Your task to perform on an android device: open app "Flipkart Online Shopping App" (install if not already installed) and go to login screen Image 0: 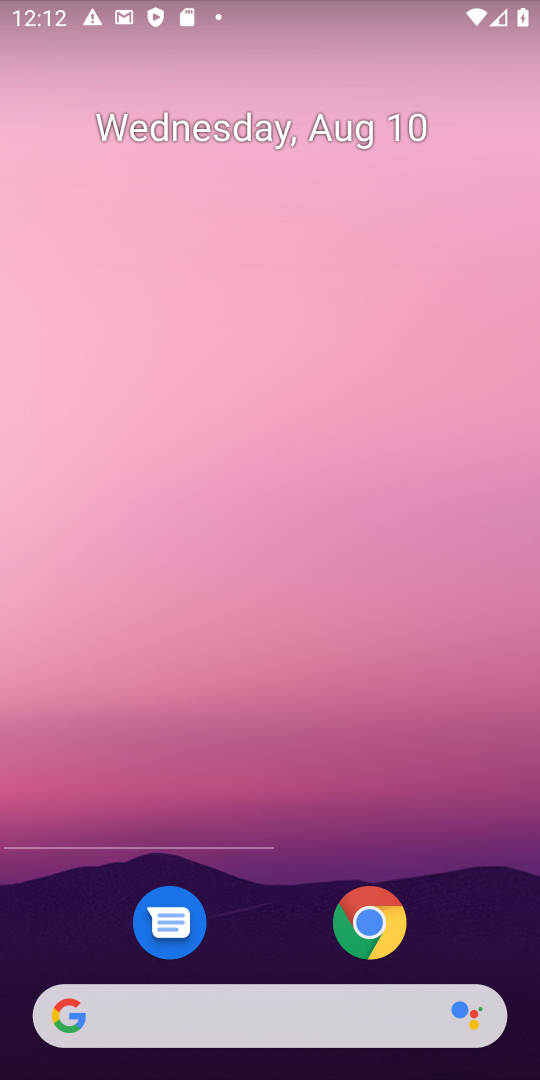
Step 0: click (213, 163)
Your task to perform on an android device: open app "Flipkart Online Shopping App" (install if not already installed) and go to login screen Image 1: 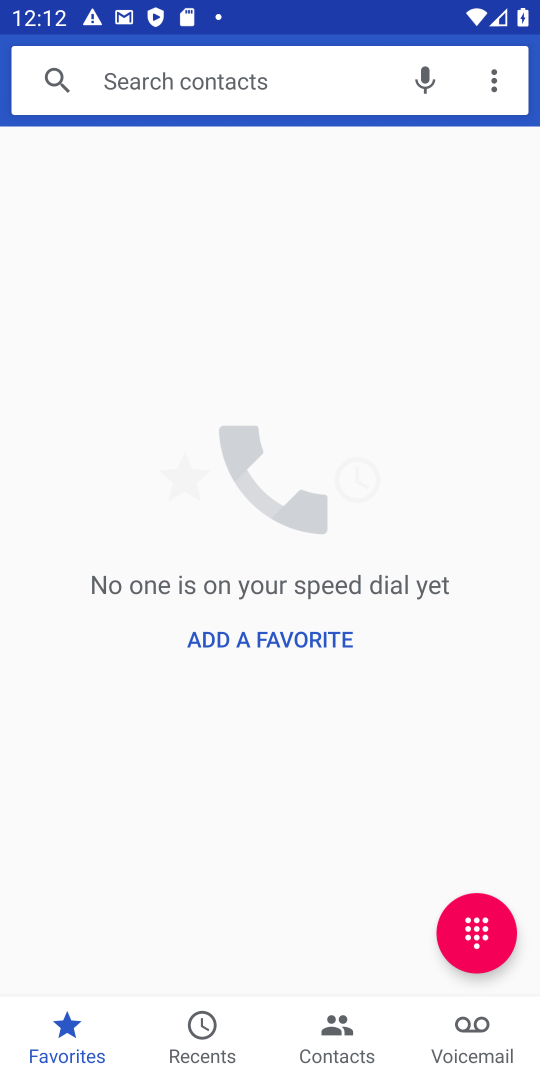
Step 1: press home button
Your task to perform on an android device: open app "Flipkart Online Shopping App" (install if not already installed) and go to login screen Image 2: 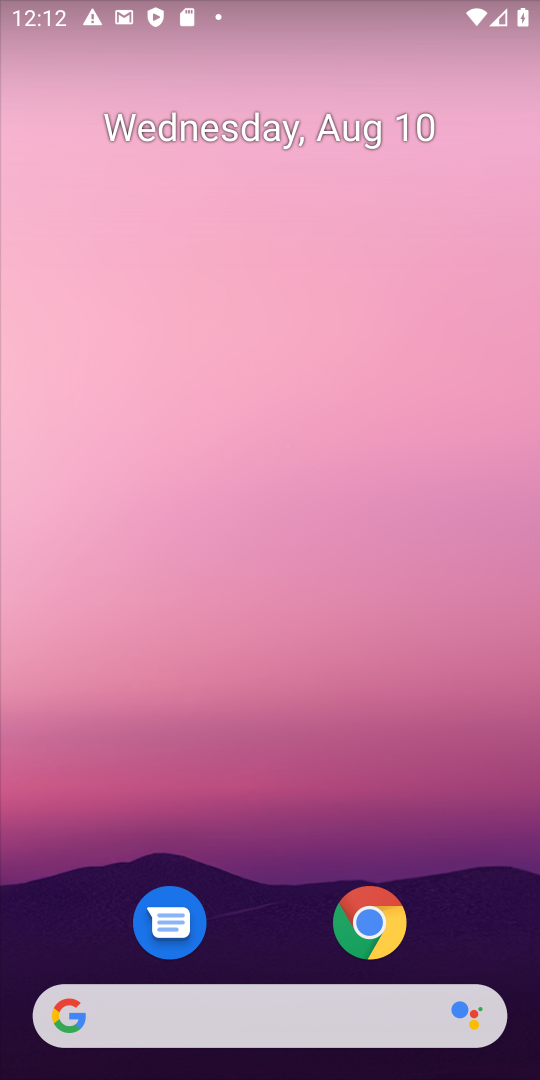
Step 2: drag from (238, 574) to (271, 87)
Your task to perform on an android device: open app "Flipkart Online Shopping App" (install if not already installed) and go to login screen Image 3: 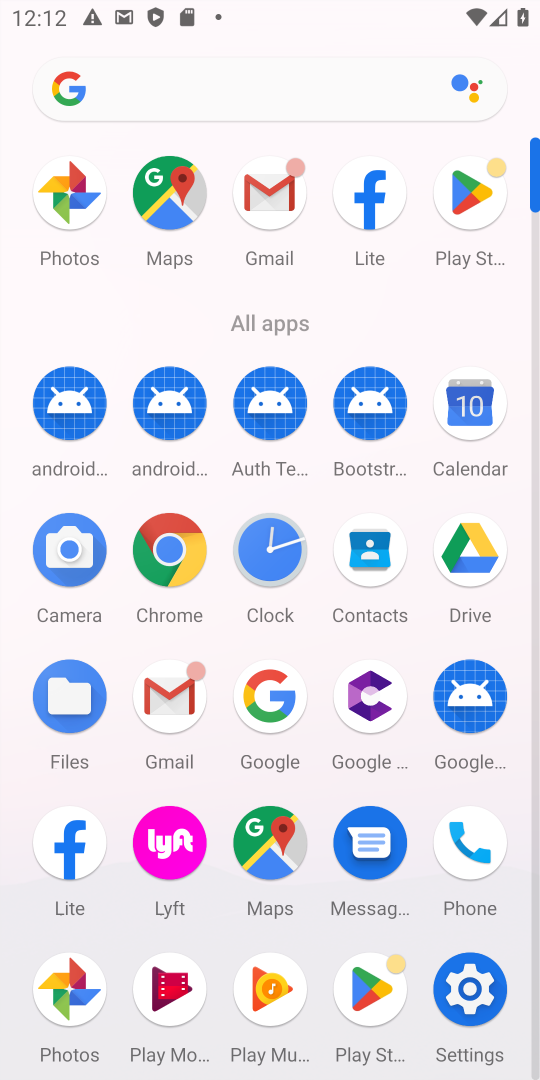
Step 3: click (352, 968)
Your task to perform on an android device: open app "Flipkart Online Shopping App" (install if not already installed) and go to login screen Image 4: 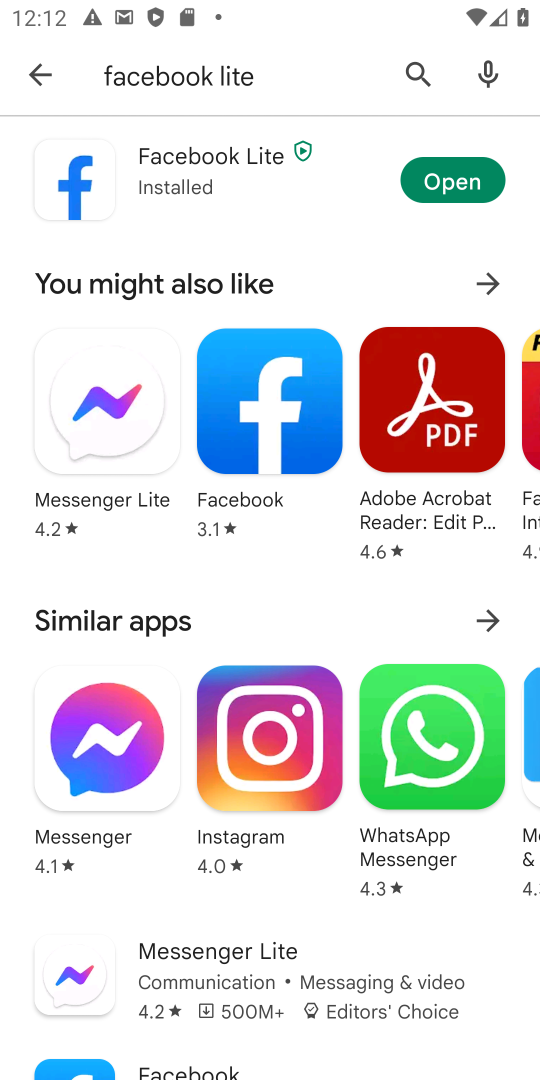
Step 4: click (34, 64)
Your task to perform on an android device: open app "Flipkart Online Shopping App" (install if not already installed) and go to login screen Image 5: 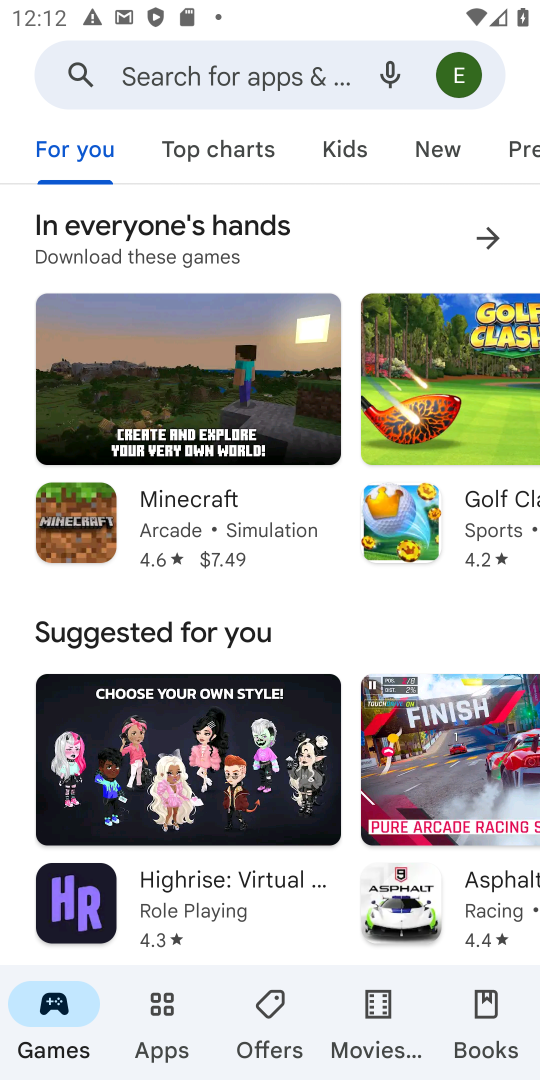
Step 5: click (152, 69)
Your task to perform on an android device: open app "Flipkart Online Shopping App" (install if not already installed) and go to login screen Image 6: 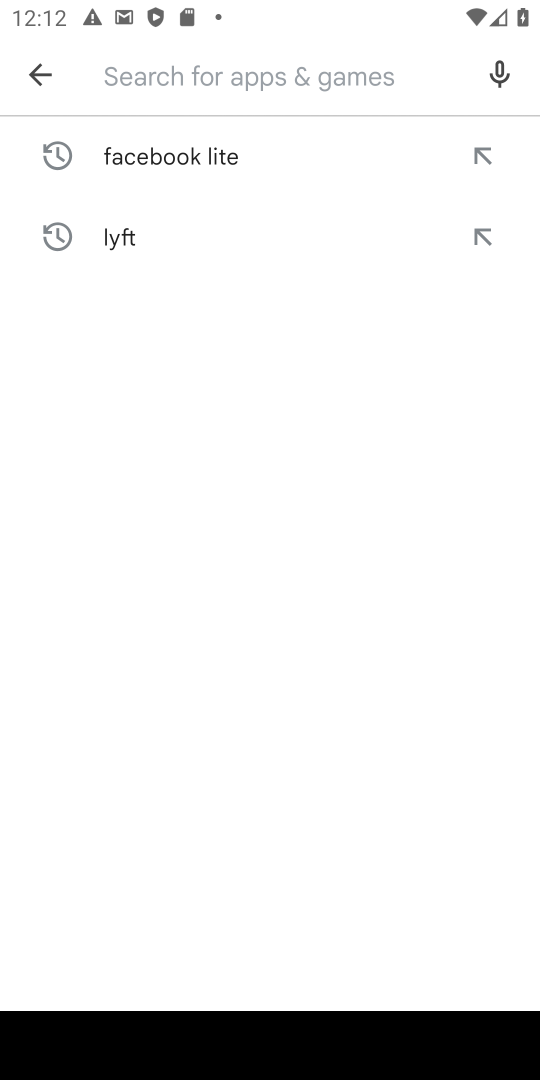
Step 6: type "Flipkart Online Shopping App"
Your task to perform on an android device: open app "Flipkart Online Shopping App" (install if not already installed) and go to login screen Image 7: 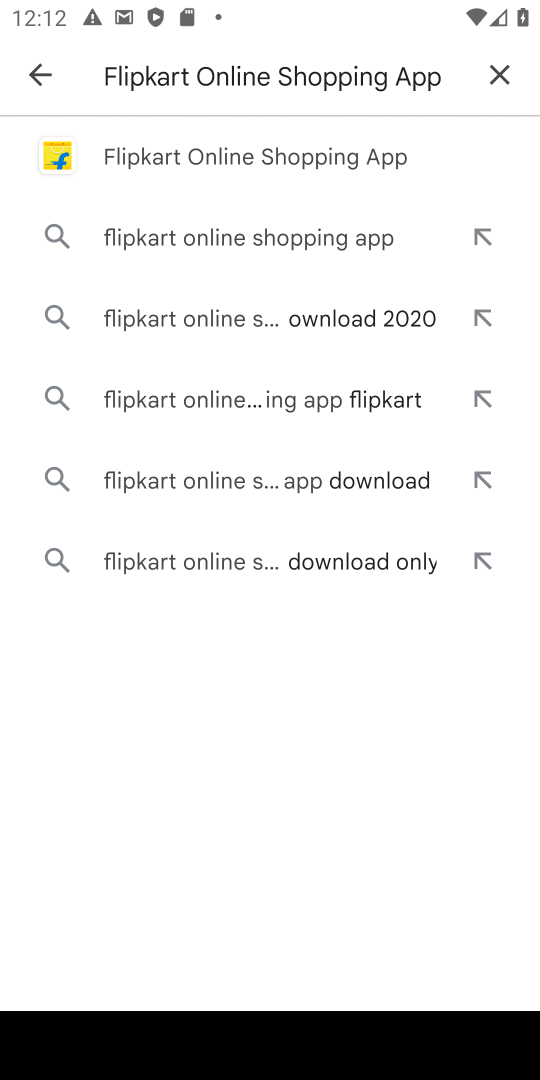
Step 7: click (265, 161)
Your task to perform on an android device: open app "Flipkart Online Shopping App" (install if not already installed) and go to login screen Image 8: 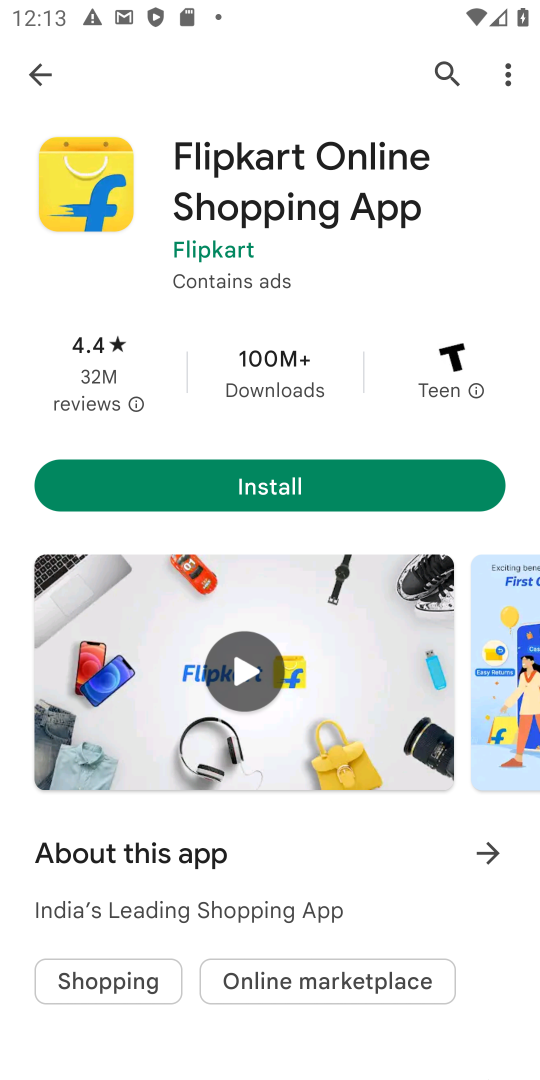
Step 8: click (275, 492)
Your task to perform on an android device: open app "Flipkart Online Shopping App" (install if not already installed) and go to login screen Image 9: 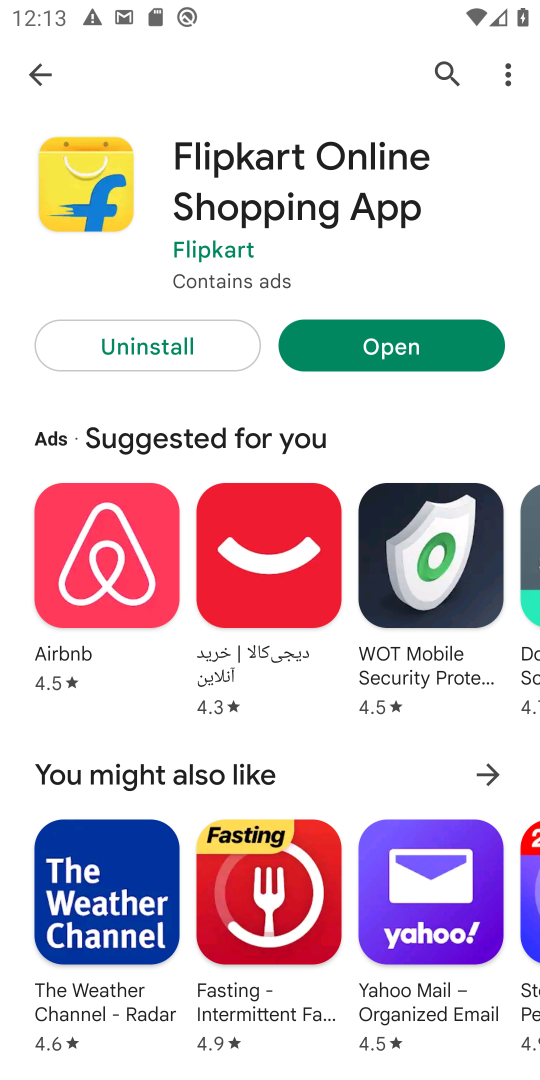
Step 9: task complete